Your task to perform on an android device: toggle priority inbox in the gmail app Image 0: 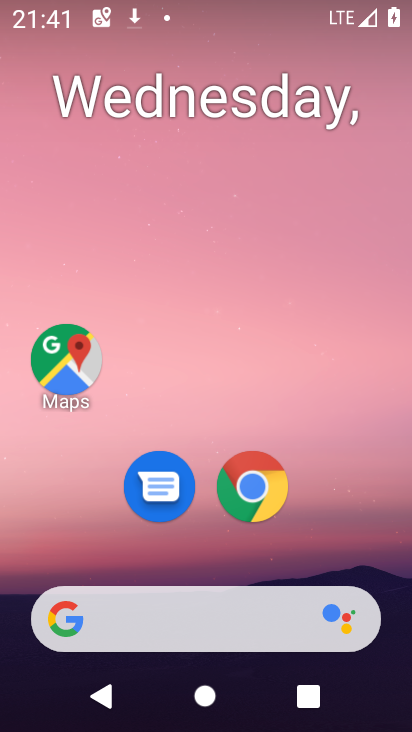
Step 0: drag from (171, 564) to (263, 22)
Your task to perform on an android device: toggle priority inbox in the gmail app Image 1: 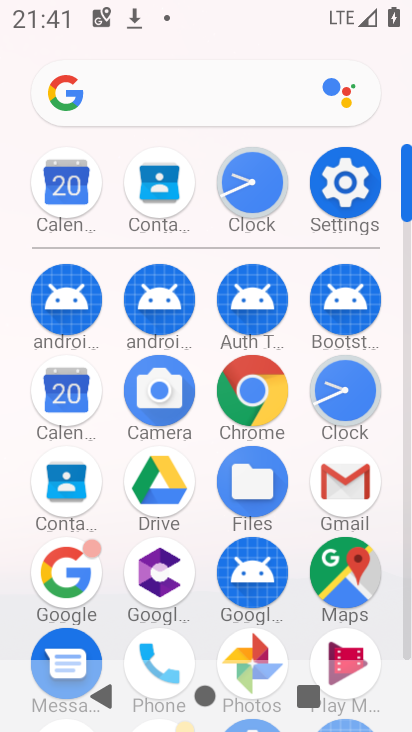
Step 1: click (346, 483)
Your task to perform on an android device: toggle priority inbox in the gmail app Image 2: 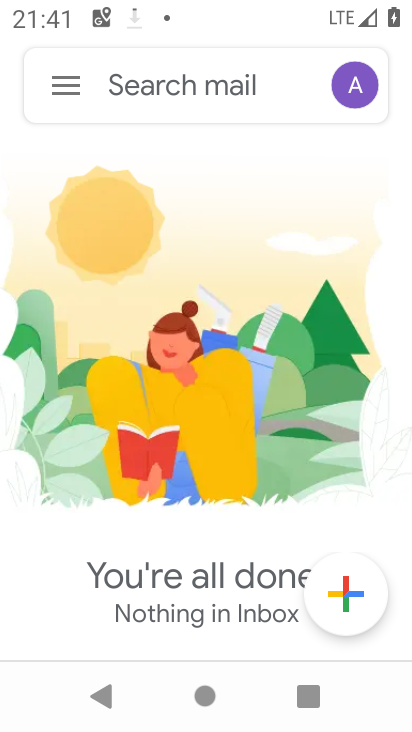
Step 2: click (57, 95)
Your task to perform on an android device: toggle priority inbox in the gmail app Image 3: 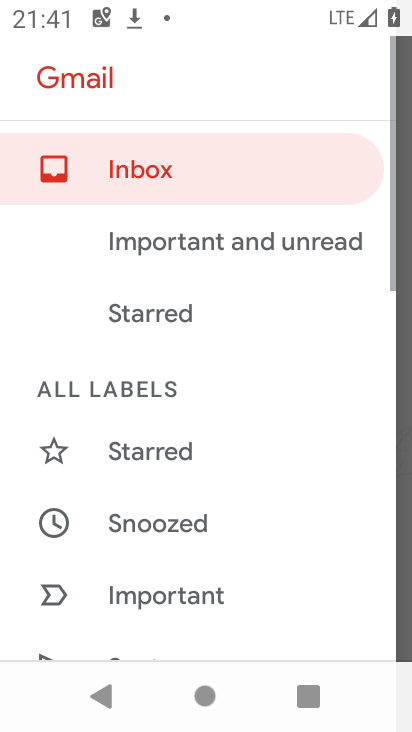
Step 3: drag from (183, 606) to (246, 102)
Your task to perform on an android device: toggle priority inbox in the gmail app Image 4: 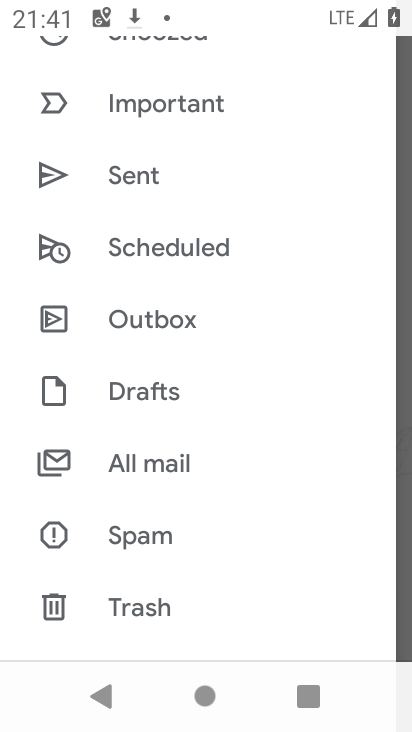
Step 4: drag from (181, 552) to (262, 32)
Your task to perform on an android device: toggle priority inbox in the gmail app Image 5: 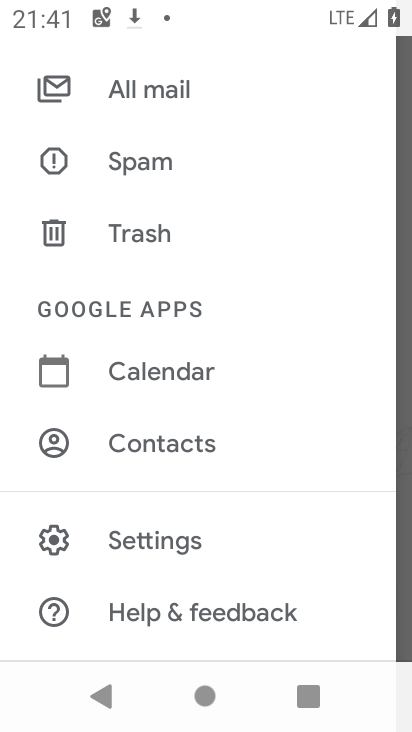
Step 5: click (164, 527)
Your task to perform on an android device: toggle priority inbox in the gmail app Image 6: 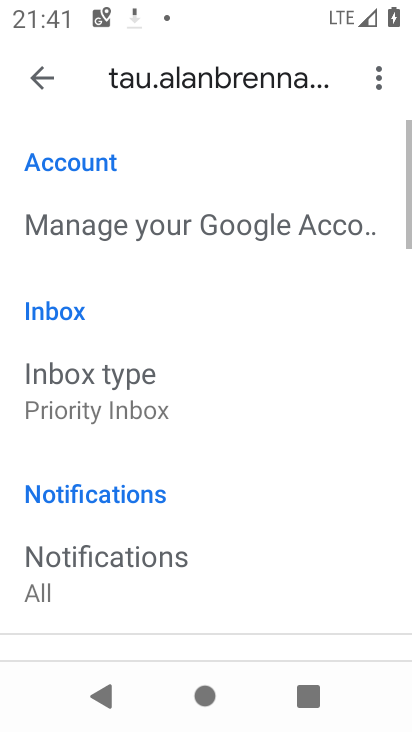
Step 6: click (155, 394)
Your task to perform on an android device: toggle priority inbox in the gmail app Image 7: 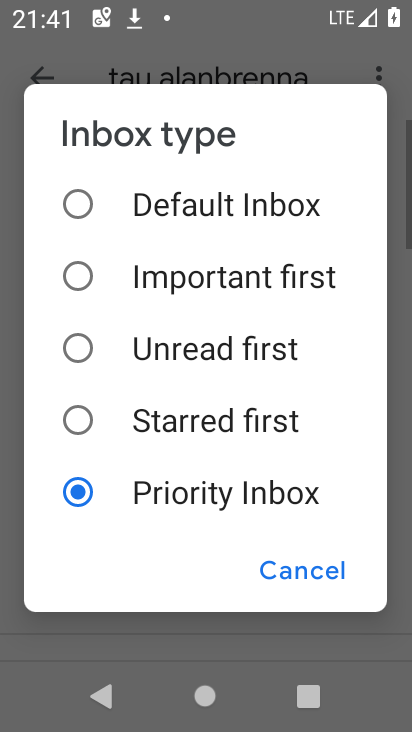
Step 7: click (111, 492)
Your task to perform on an android device: toggle priority inbox in the gmail app Image 8: 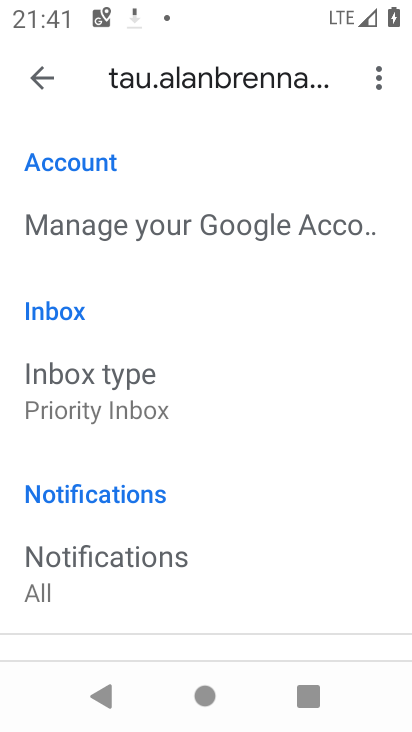
Step 8: task complete